Your task to perform on an android device: Open Reddit Image 0: 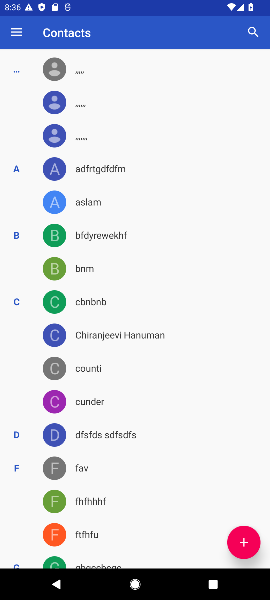
Step 0: press home button
Your task to perform on an android device: Open Reddit Image 1: 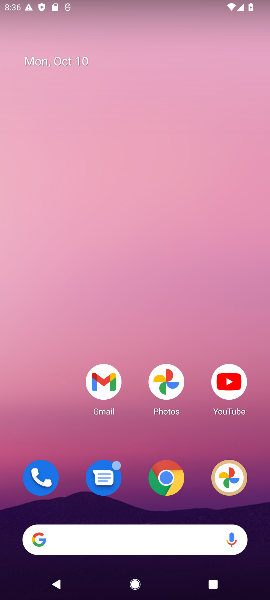
Step 1: click (170, 476)
Your task to perform on an android device: Open Reddit Image 2: 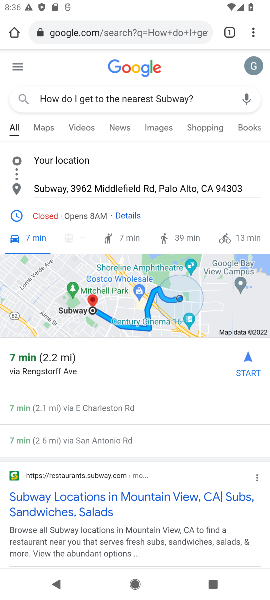
Step 2: click (106, 26)
Your task to perform on an android device: Open Reddit Image 3: 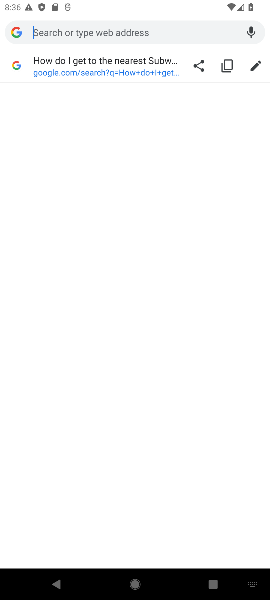
Step 3: type "reddit"
Your task to perform on an android device: Open Reddit Image 4: 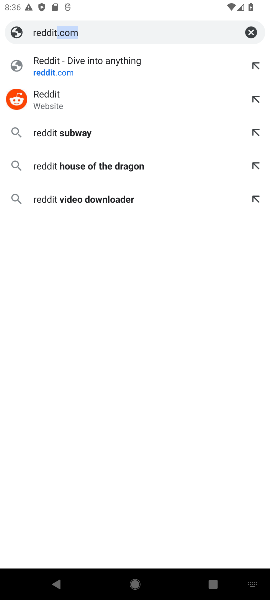
Step 4: click (78, 62)
Your task to perform on an android device: Open Reddit Image 5: 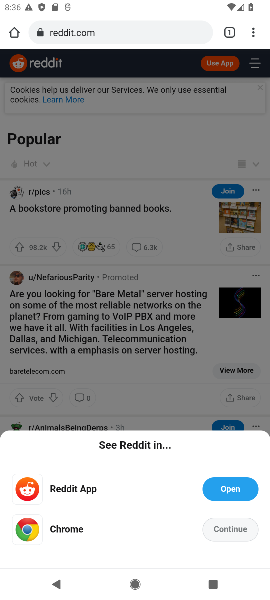
Step 5: click (228, 532)
Your task to perform on an android device: Open Reddit Image 6: 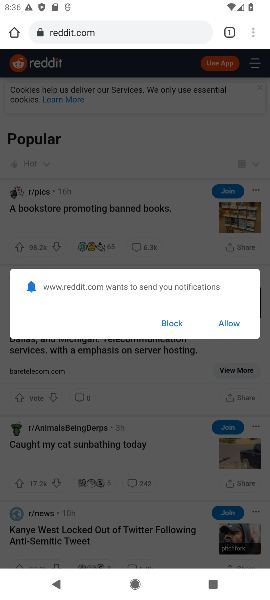
Step 6: click (226, 320)
Your task to perform on an android device: Open Reddit Image 7: 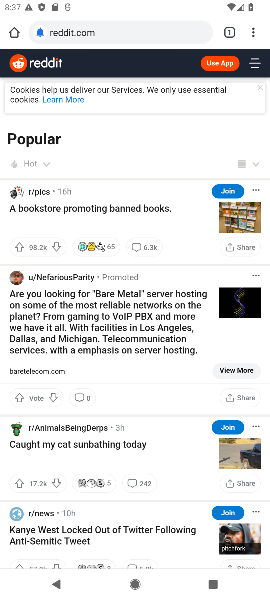
Step 7: task complete